Your task to perform on an android device: refresh tabs in the chrome app Image 0: 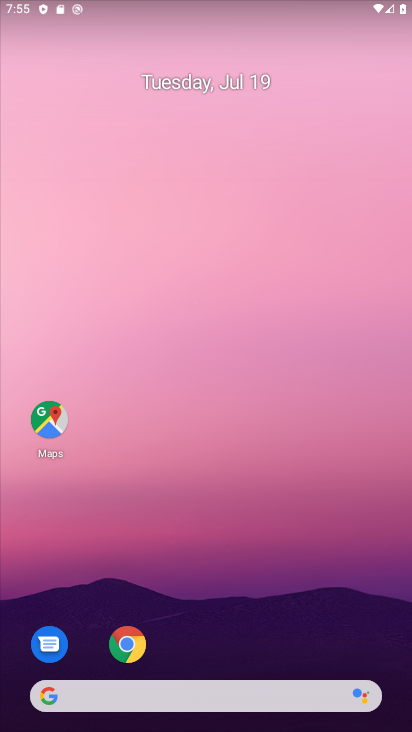
Step 0: click (139, 645)
Your task to perform on an android device: refresh tabs in the chrome app Image 1: 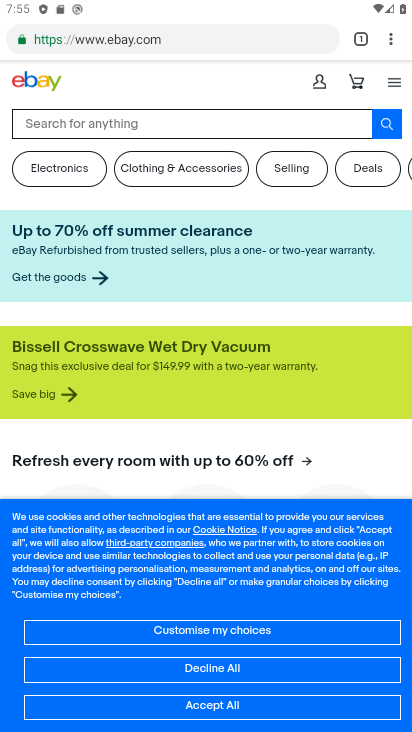
Step 1: click (390, 41)
Your task to perform on an android device: refresh tabs in the chrome app Image 2: 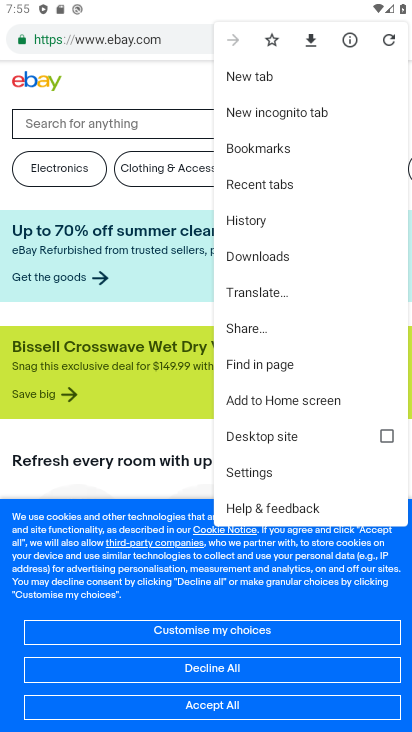
Step 2: click (390, 49)
Your task to perform on an android device: refresh tabs in the chrome app Image 3: 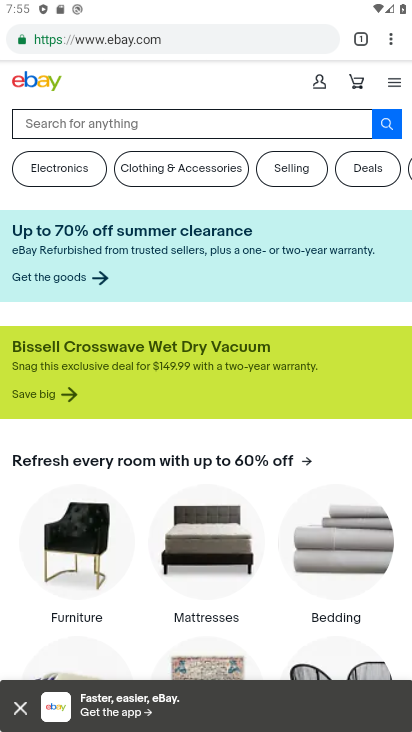
Step 3: task complete